Your task to perform on an android device: uninstall "YouTube Kids" Image 0: 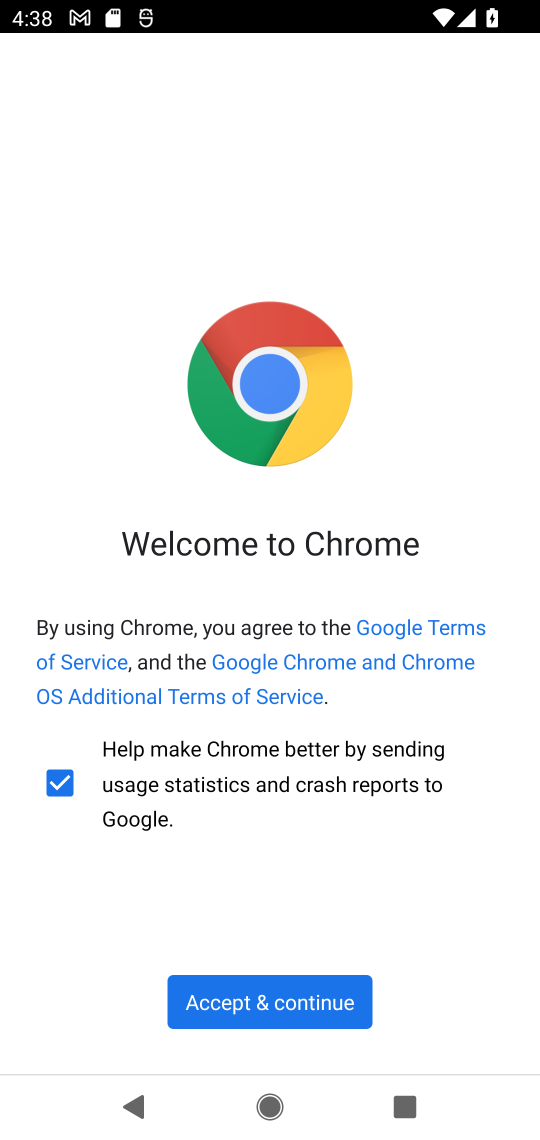
Step 0: press home button
Your task to perform on an android device: uninstall "YouTube Kids" Image 1: 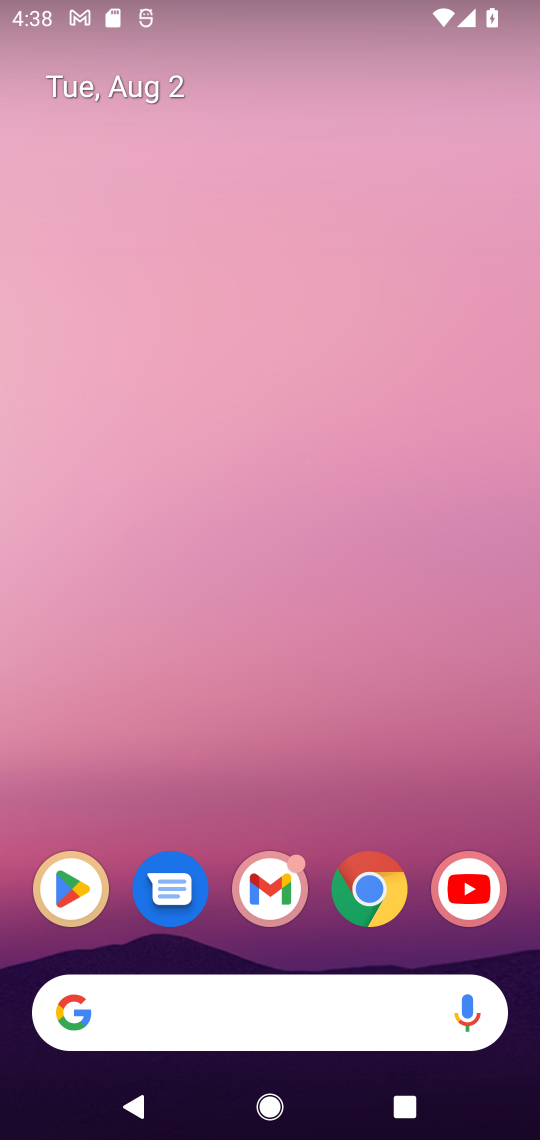
Step 1: drag from (430, 769) to (397, 83)
Your task to perform on an android device: uninstall "YouTube Kids" Image 2: 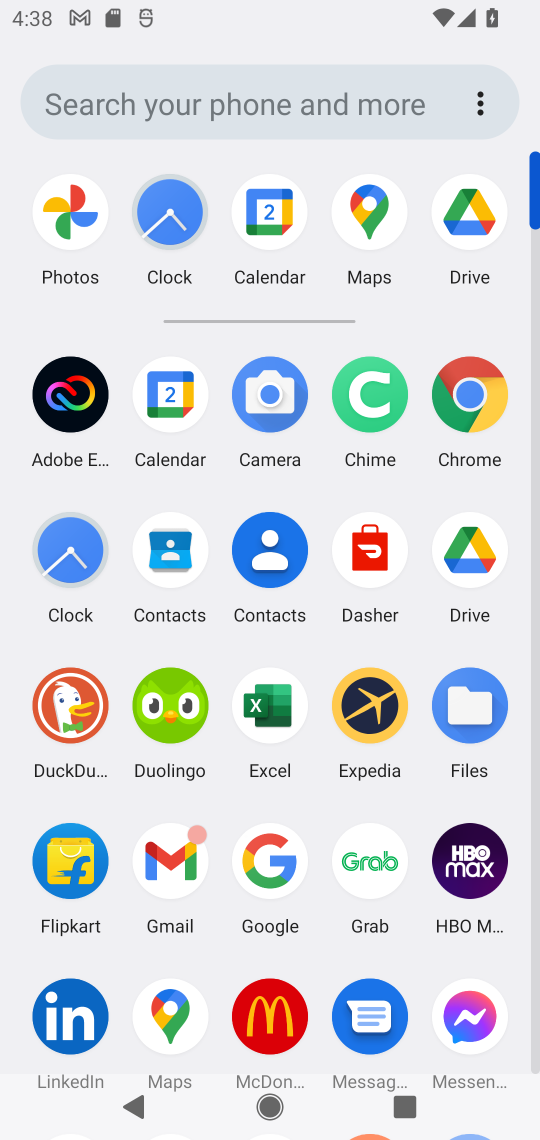
Step 2: drag from (499, 962) to (506, 656)
Your task to perform on an android device: uninstall "YouTube Kids" Image 3: 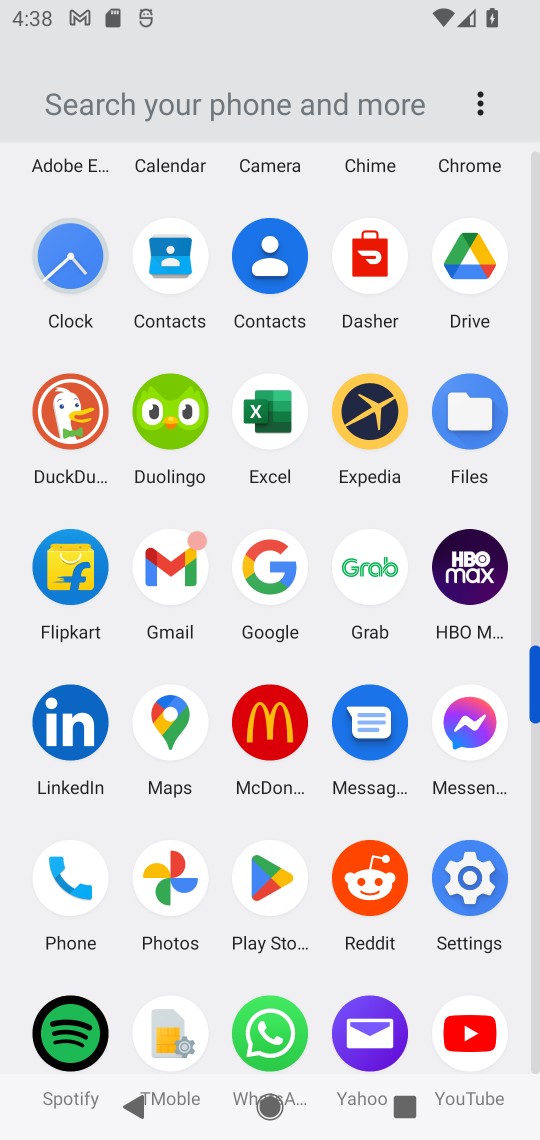
Step 3: click (263, 894)
Your task to perform on an android device: uninstall "YouTube Kids" Image 4: 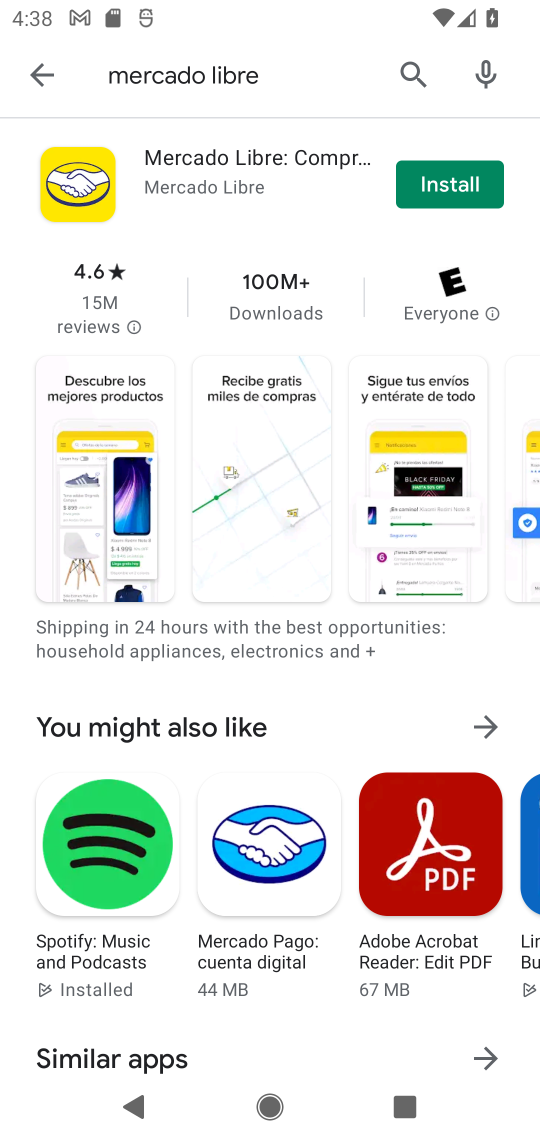
Step 4: click (416, 78)
Your task to perform on an android device: uninstall "YouTube Kids" Image 5: 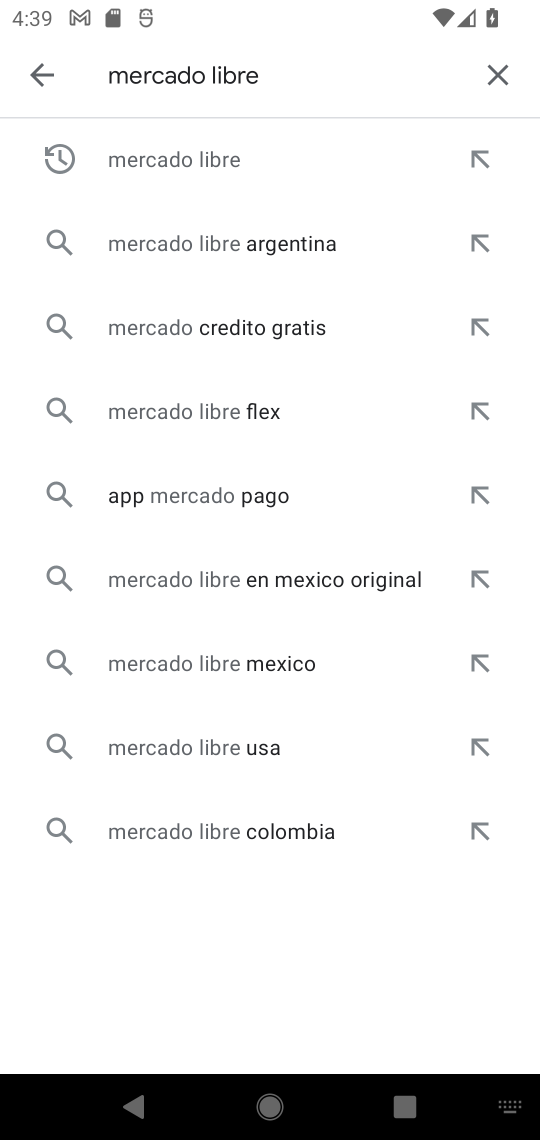
Step 5: click (502, 79)
Your task to perform on an android device: uninstall "YouTube Kids" Image 6: 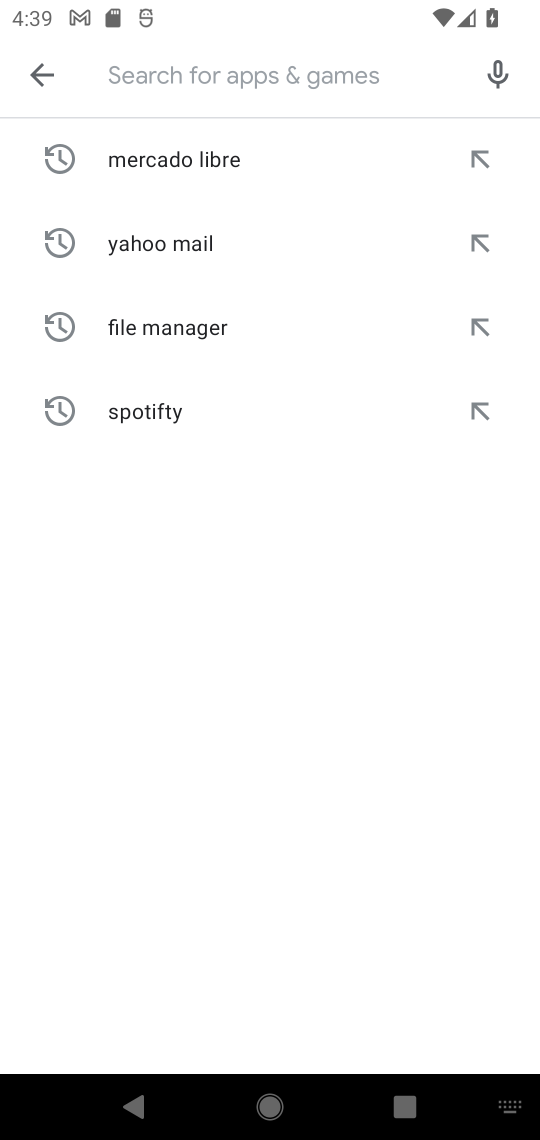
Step 6: type "you tube kids"
Your task to perform on an android device: uninstall "YouTube Kids" Image 7: 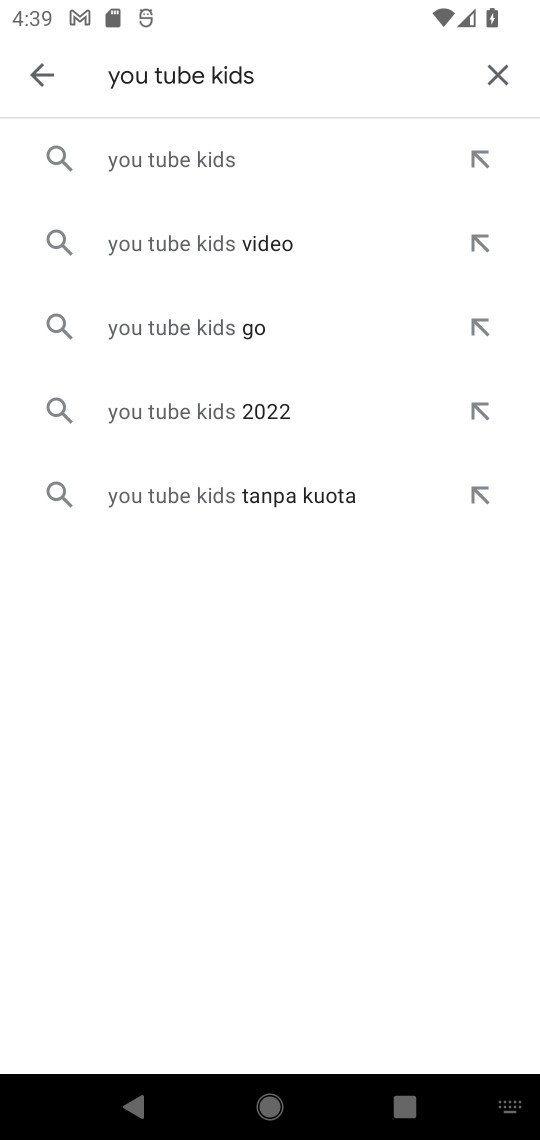
Step 7: click (227, 147)
Your task to perform on an android device: uninstall "YouTube Kids" Image 8: 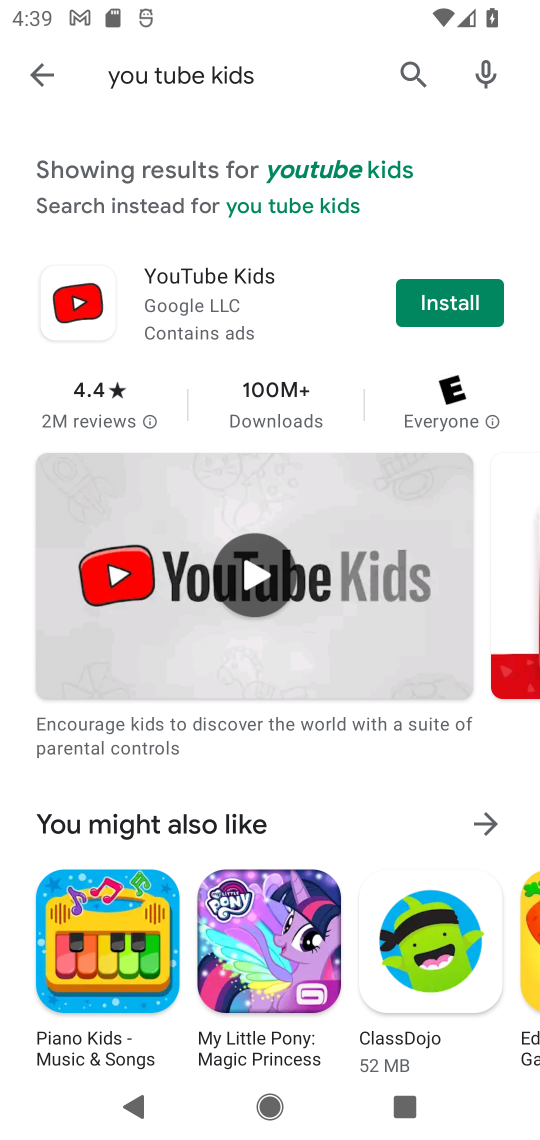
Step 8: task complete